Your task to perform on an android device: Clear the cart on costco. Search for duracell triple a on costco, select the first entry, and add it to the cart. Image 0: 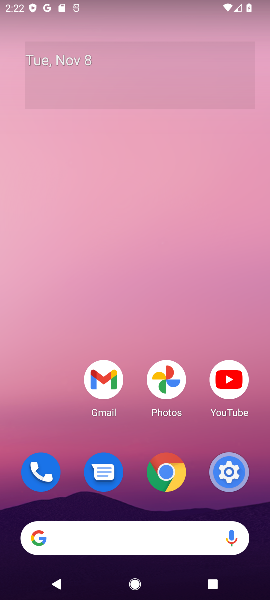
Step 0: click (138, 538)
Your task to perform on an android device: Clear the cart on costco. Search for duracell triple a on costco, select the first entry, and add it to the cart. Image 1: 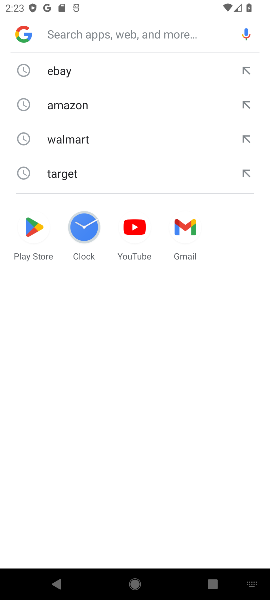
Step 1: type "costco"
Your task to perform on an android device: Clear the cart on costco. Search for duracell triple a on costco, select the first entry, and add it to the cart. Image 2: 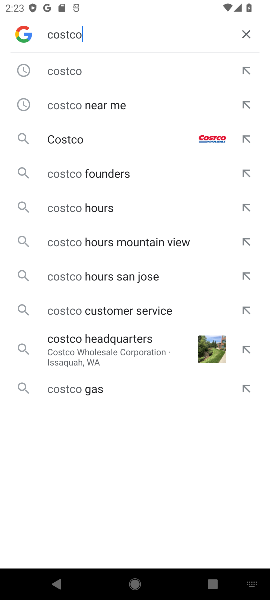
Step 2: click (111, 142)
Your task to perform on an android device: Clear the cart on costco. Search for duracell triple a on costco, select the first entry, and add it to the cart. Image 3: 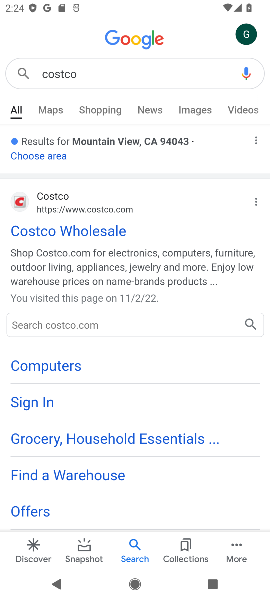
Step 3: click (18, 219)
Your task to perform on an android device: Clear the cart on costco. Search for duracell triple a on costco, select the first entry, and add it to the cart. Image 4: 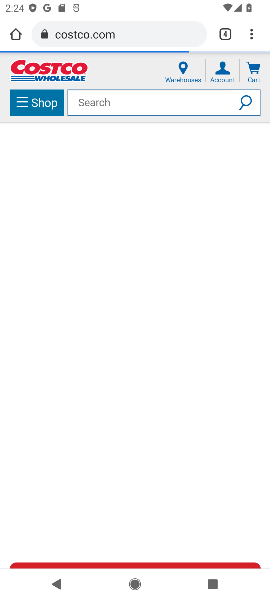
Step 4: task complete